Your task to perform on an android device: Open the contacts Image 0: 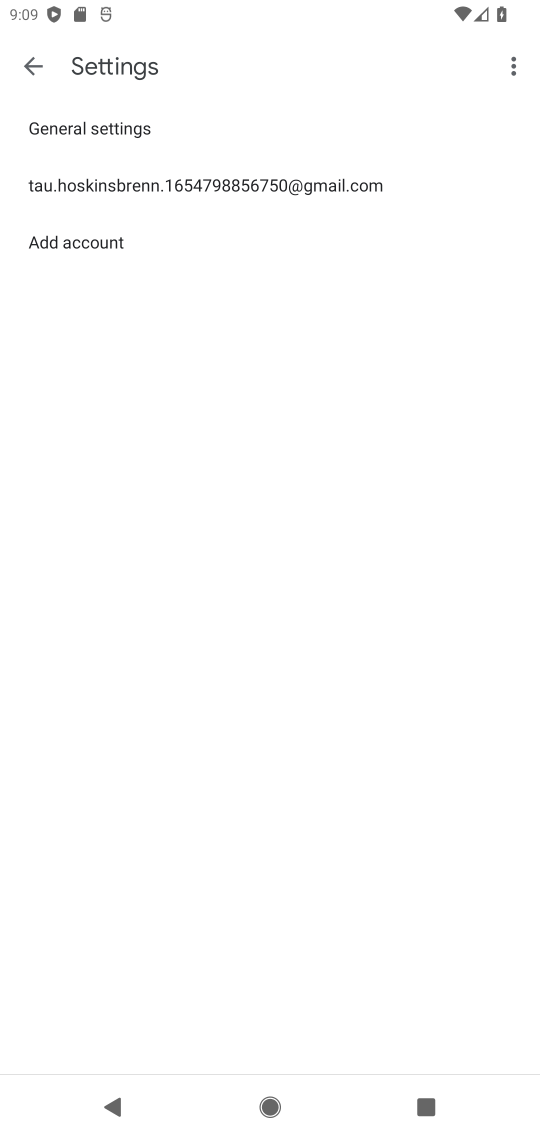
Step 0: press home button
Your task to perform on an android device: Open the contacts Image 1: 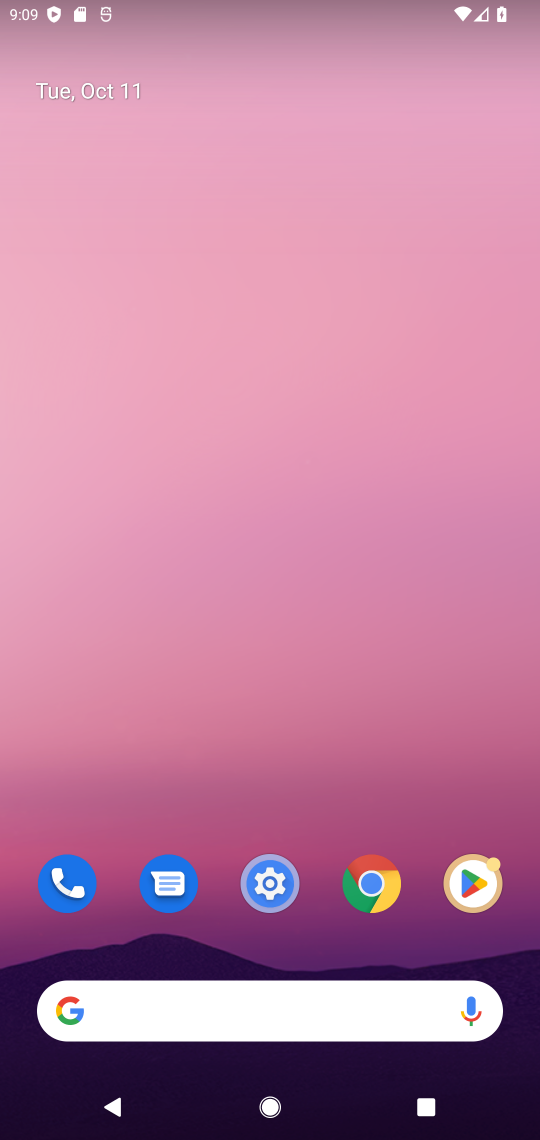
Step 1: click (70, 893)
Your task to perform on an android device: Open the contacts Image 2: 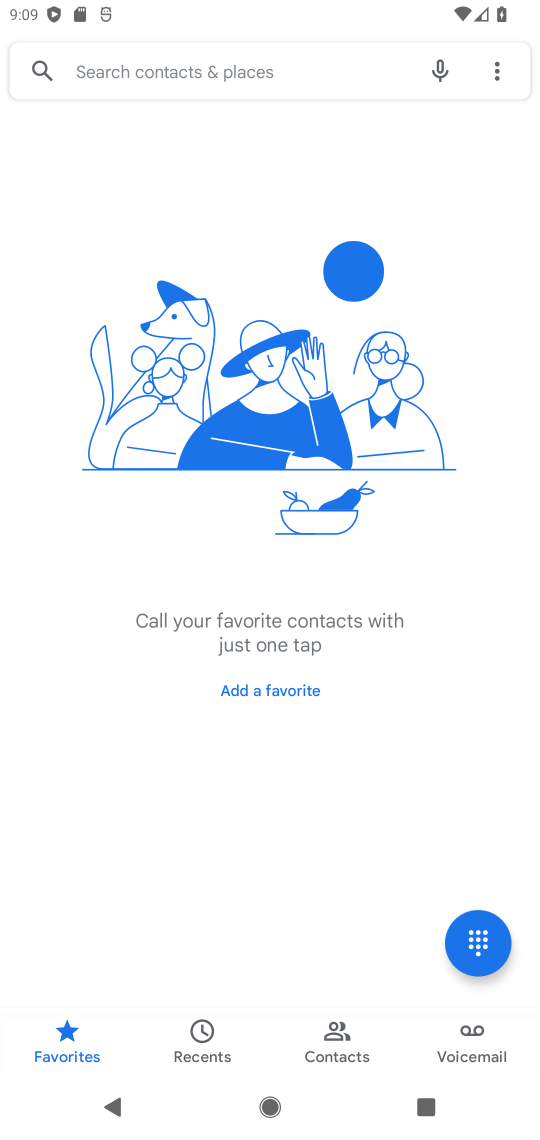
Step 2: click (327, 1039)
Your task to perform on an android device: Open the contacts Image 3: 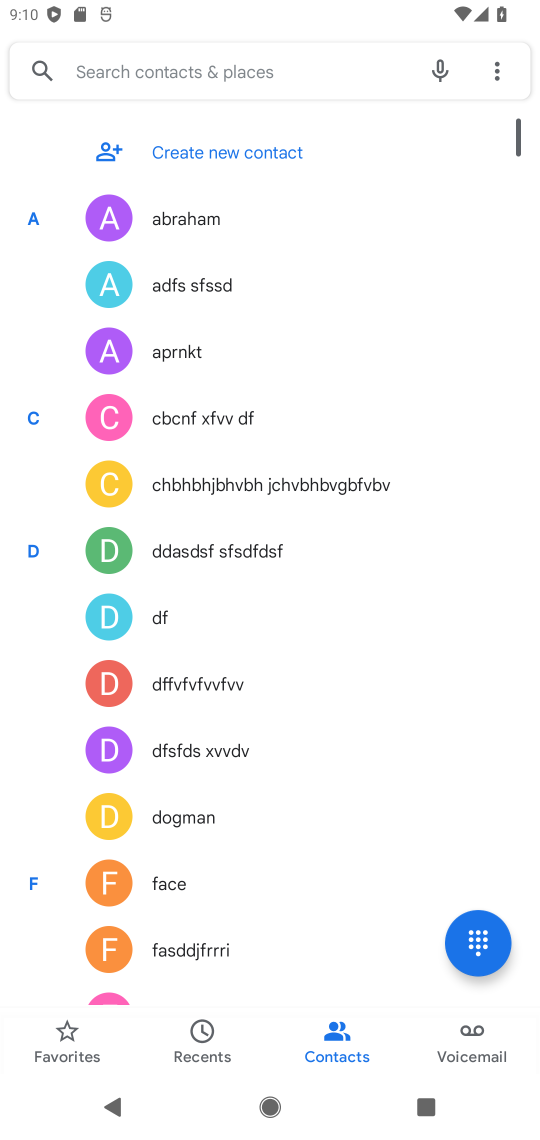
Step 3: task complete